Your task to perform on an android device: Go to display settings Image 0: 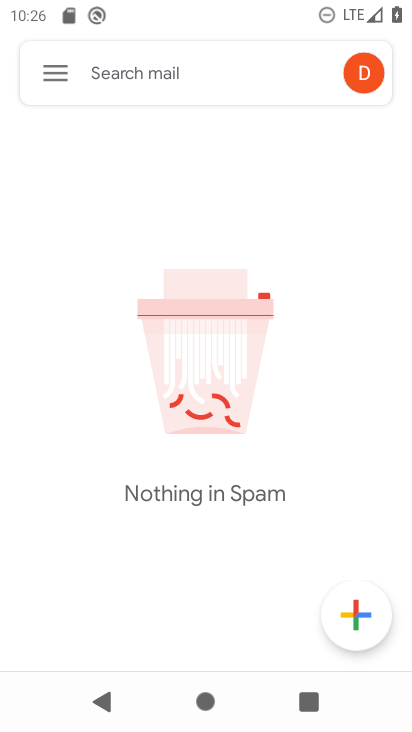
Step 0: press home button
Your task to perform on an android device: Go to display settings Image 1: 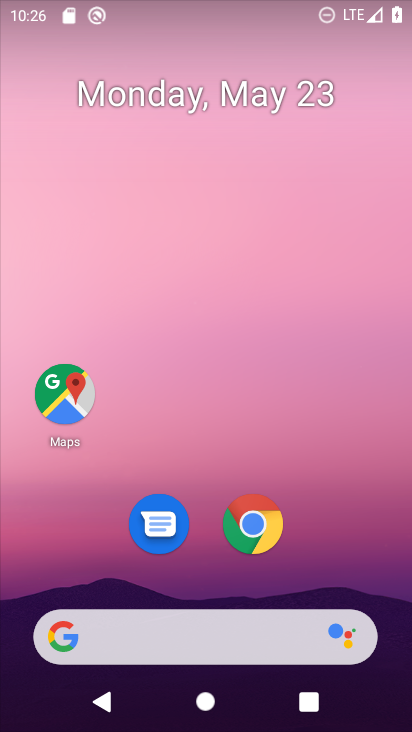
Step 1: drag from (272, 427) to (235, 29)
Your task to perform on an android device: Go to display settings Image 2: 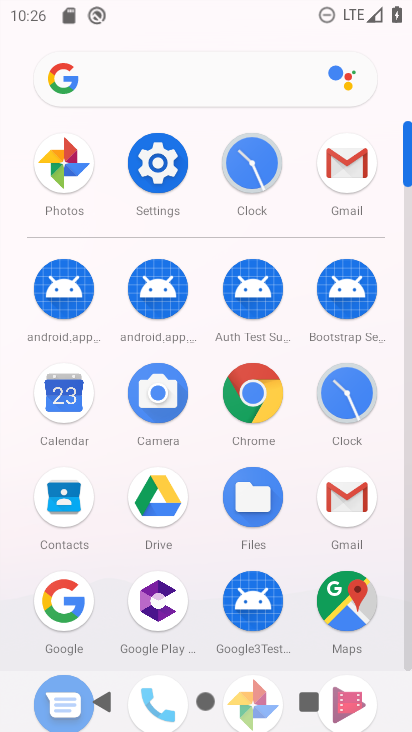
Step 2: click (167, 155)
Your task to perform on an android device: Go to display settings Image 3: 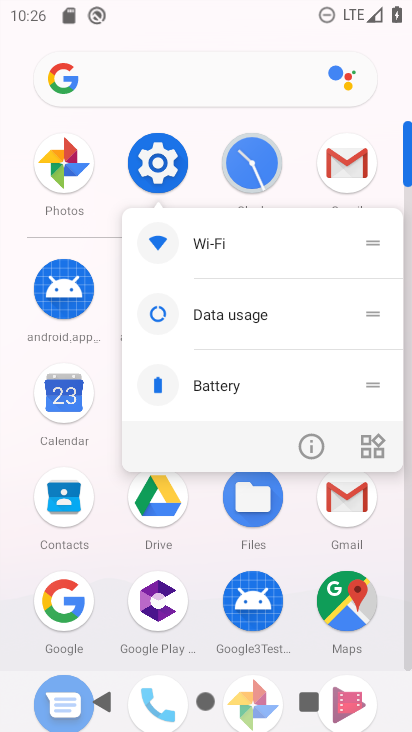
Step 3: click (165, 157)
Your task to perform on an android device: Go to display settings Image 4: 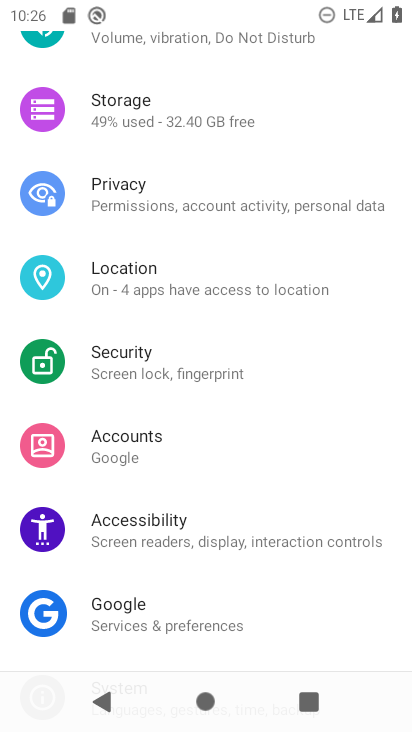
Step 4: drag from (163, 347) to (196, 668)
Your task to perform on an android device: Go to display settings Image 5: 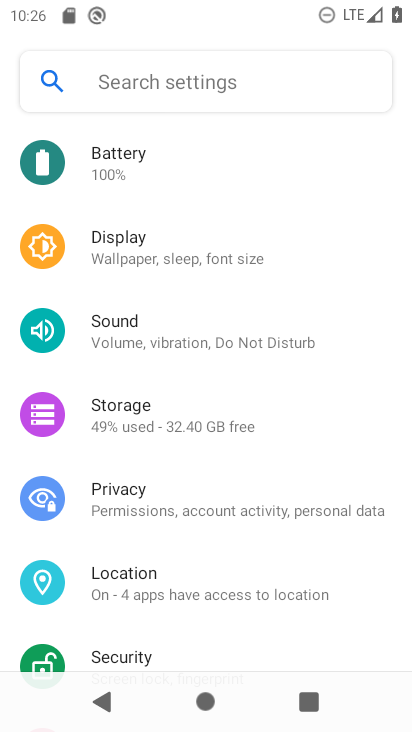
Step 5: click (233, 253)
Your task to perform on an android device: Go to display settings Image 6: 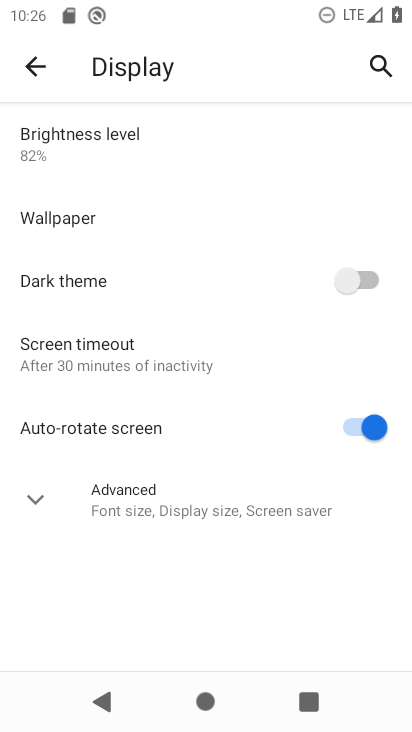
Step 6: task complete